Your task to perform on an android device: delete a single message in the gmail app Image 0: 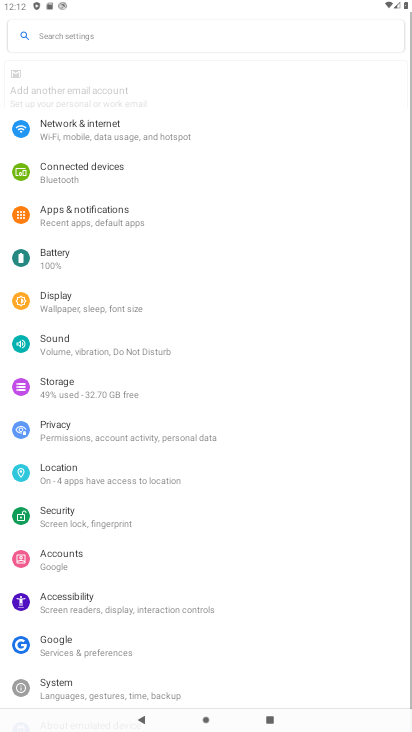
Step 0: drag from (370, 646) to (235, 234)
Your task to perform on an android device: delete a single message in the gmail app Image 1: 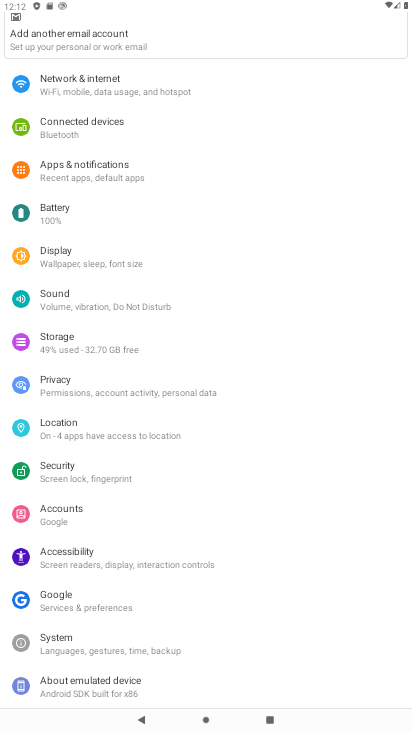
Step 1: press home button
Your task to perform on an android device: delete a single message in the gmail app Image 2: 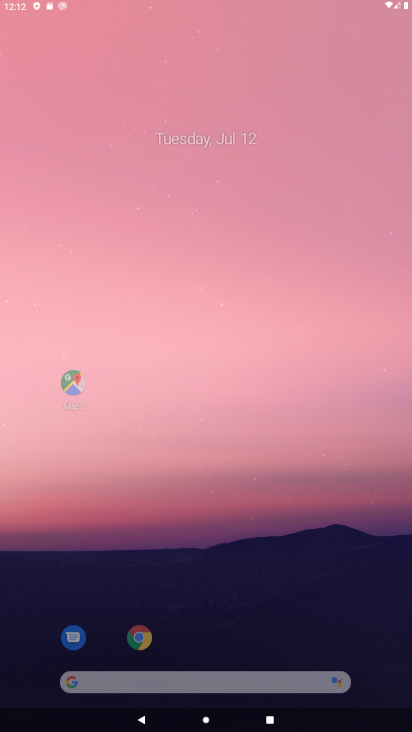
Step 2: drag from (375, 702) to (122, 0)
Your task to perform on an android device: delete a single message in the gmail app Image 3: 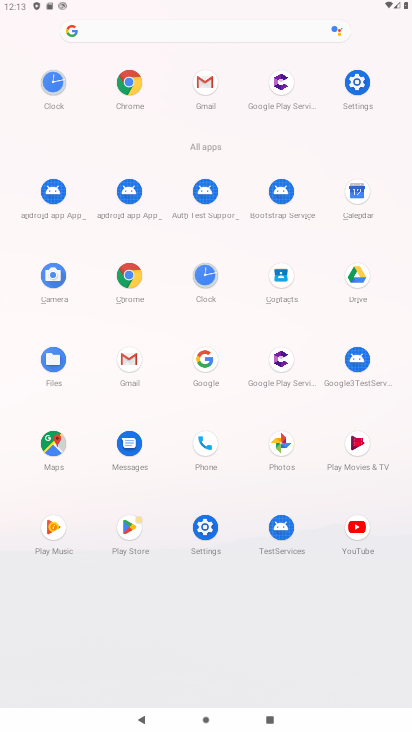
Step 3: click (122, 362)
Your task to perform on an android device: delete a single message in the gmail app Image 4: 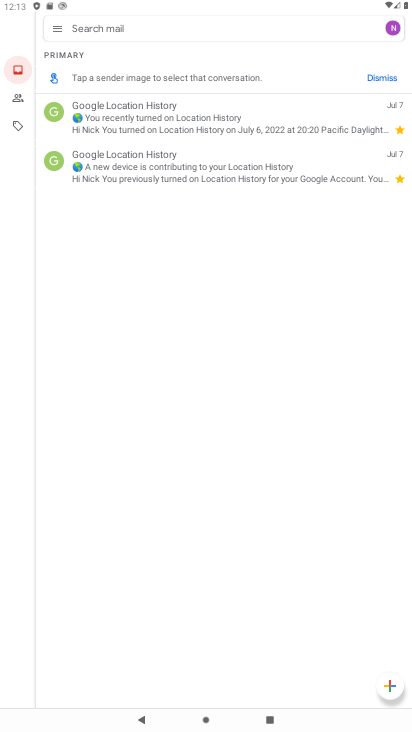
Step 4: click (162, 114)
Your task to perform on an android device: delete a single message in the gmail app Image 5: 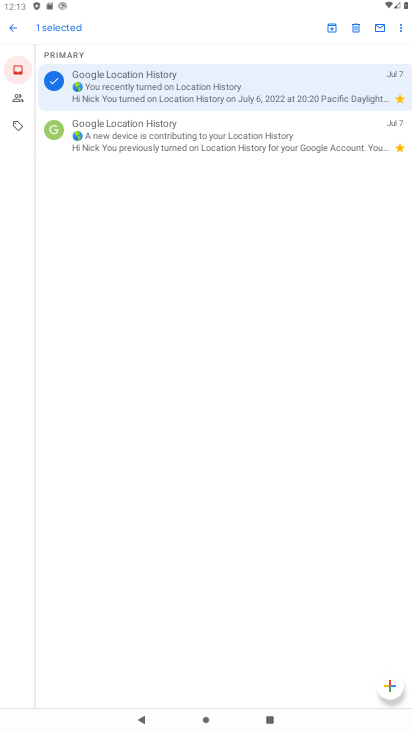
Step 5: click (354, 25)
Your task to perform on an android device: delete a single message in the gmail app Image 6: 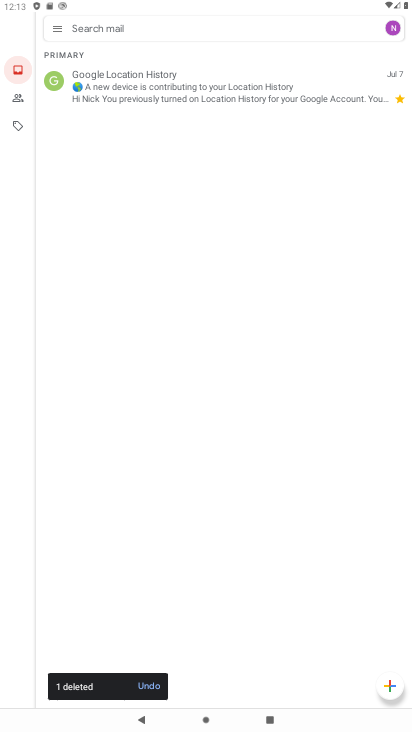
Step 6: task complete